Your task to perform on an android device: toggle notifications settings in the gmail app Image 0: 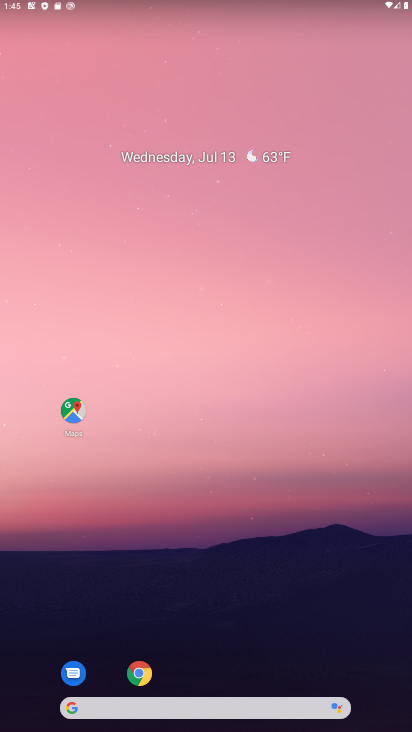
Step 0: drag from (192, 625) to (226, 283)
Your task to perform on an android device: toggle notifications settings in the gmail app Image 1: 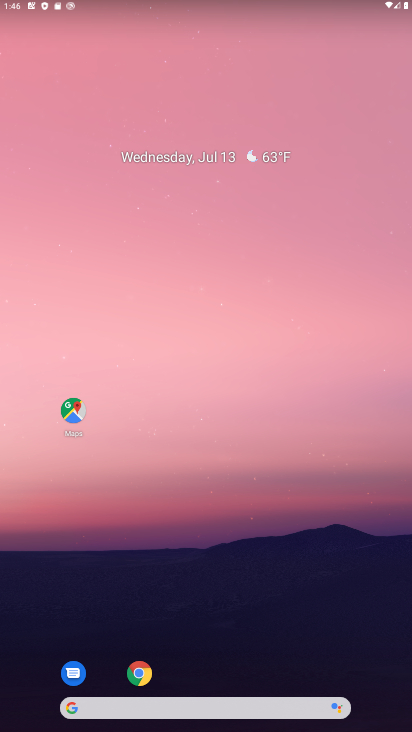
Step 1: drag from (265, 605) to (220, 238)
Your task to perform on an android device: toggle notifications settings in the gmail app Image 2: 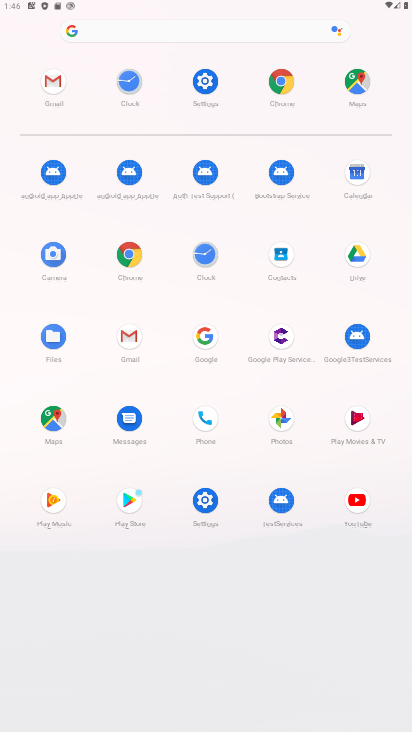
Step 2: click (114, 344)
Your task to perform on an android device: toggle notifications settings in the gmail app Image 3: 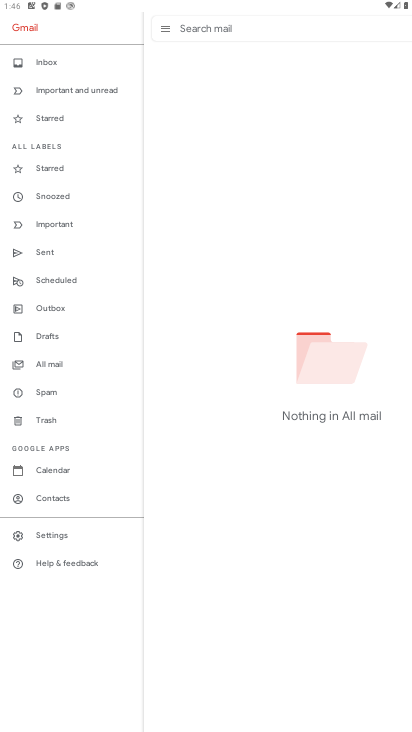
Step 3: click (64, 531)
Your task to perform on an android device: toggle notifications settings in the gmail app Image 4: 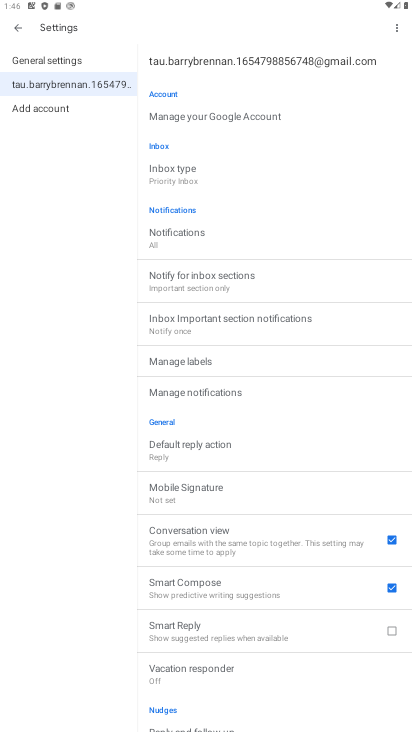
Step 4: click (188, 242)
Your task to perform on an android device: toggle notifications settings in the gmail app Image 5: 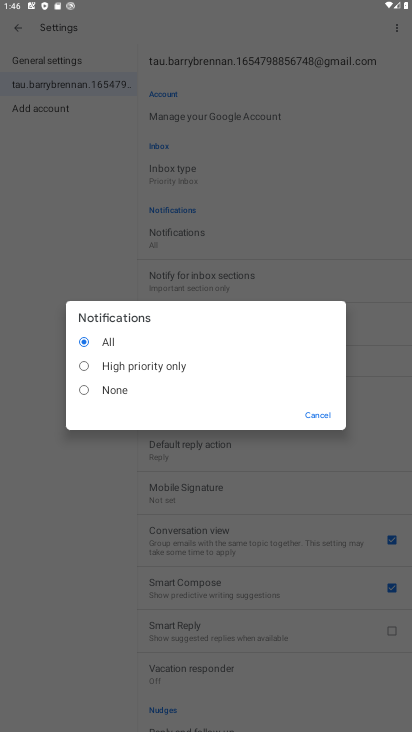
Step 5: click (103, 382)
Your task to perform on an android device: toggle notifications settings in the gmail app Image 6: 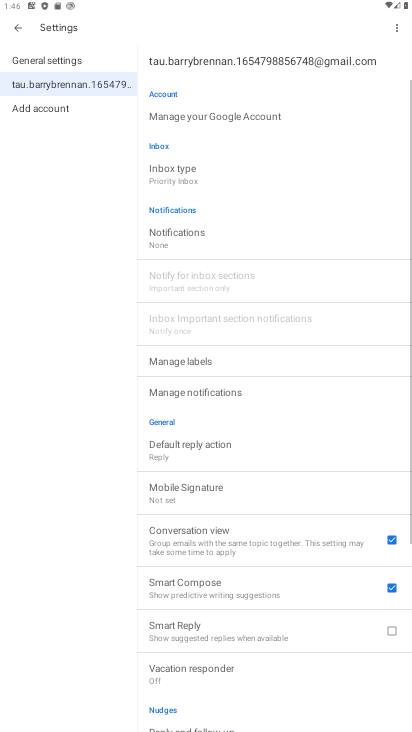
Step 6: task complete